Your task to perform on an android device: choose inbox layout in the gmail app Image 0: 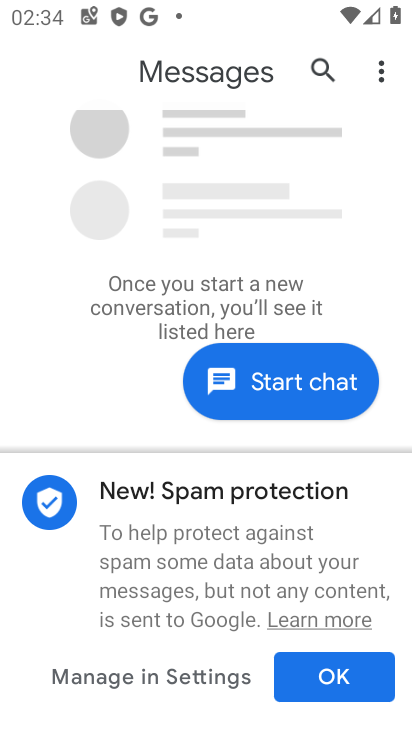
Step 0: press home button
Your task to perform on an android device: choose inbox layout in the gmail app Image 1: 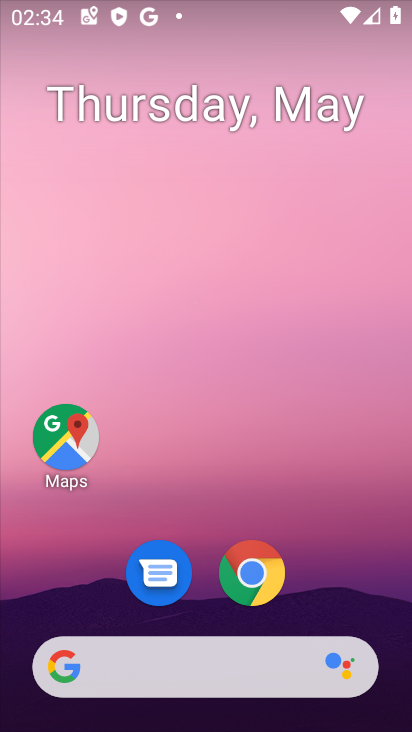
Step 1: drag from (312, 572) to (314, 247)
Your task to perform on an android device: choose inbox layout in the gmail app Image 2: 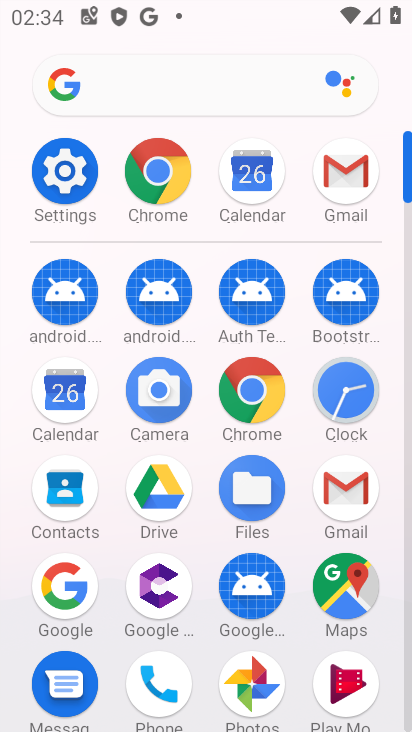
Step 2: click (346, 484)
Your task to perform on an android device: choose inbox layout in the gmail app Image 3: 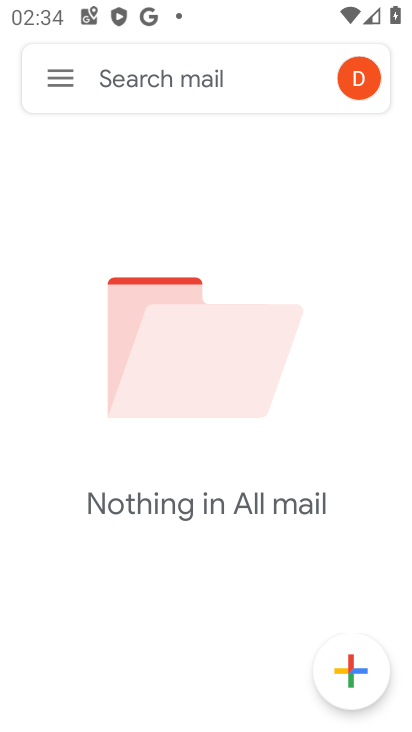
Step 3: click (62, 64)
Your task to perform on an android device: choose inbox layout in the gmail app Image 4: 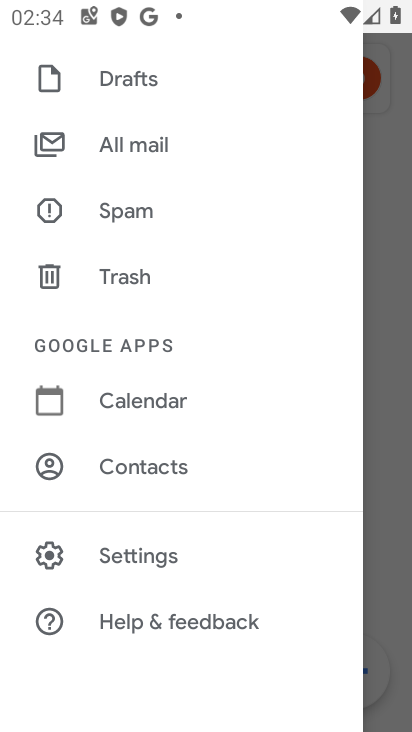
Step 4: click (138, 563)
Your task to perform on an android device: choose inbox layout in the gmail app Image 5: 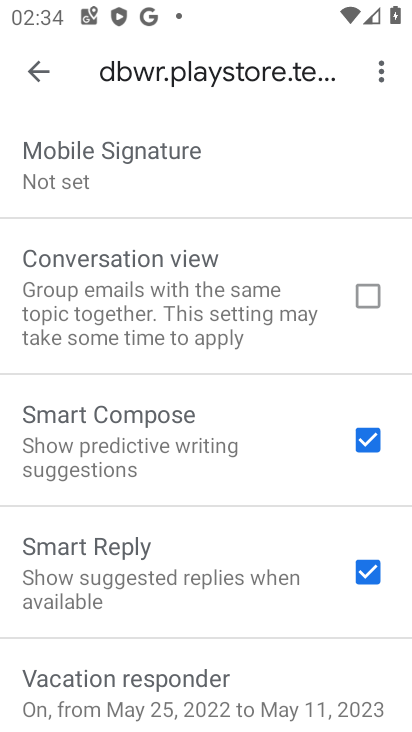
Step 5: drag from (121, 222) to (129, 655)
Your task to perform on an android device: choose inbox layout in the gmail app Image 6: 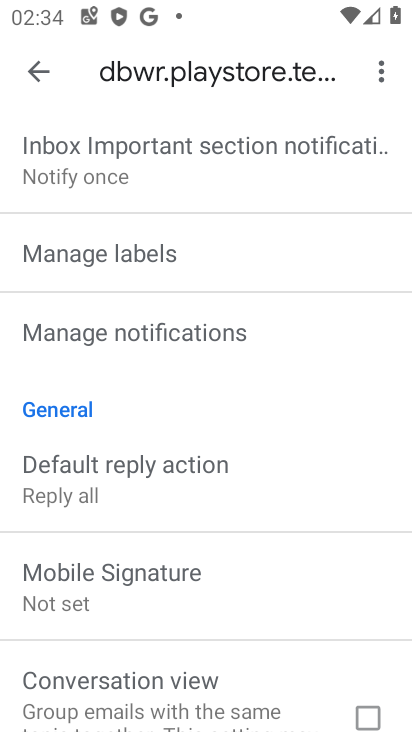
Step 6: drag from (111, 213) to (166, 603)
Your task to perform on an android device: choose inbox layout in the gmail app Image 7: 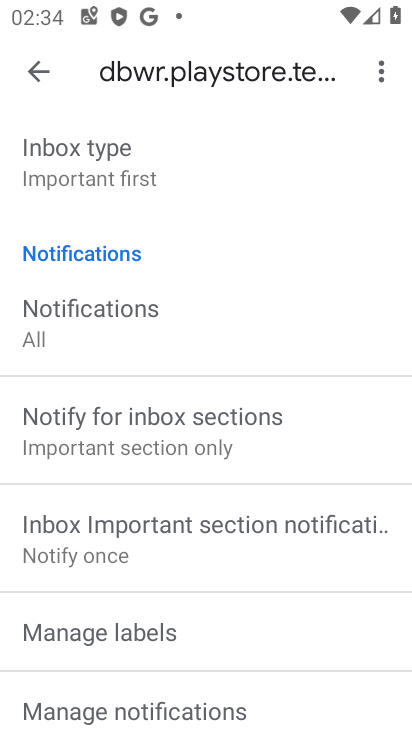
Step 7: click (152, 513)
Your task to perform on an android device: choose inbox layout in the gmail app Image 8: 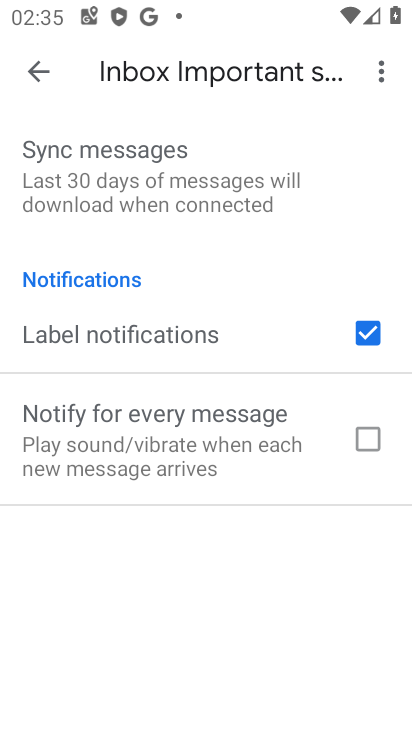
Step 8: click (33, 57)
Your task to perform on an android device: choose inbox layout in the gmail app Image 9: 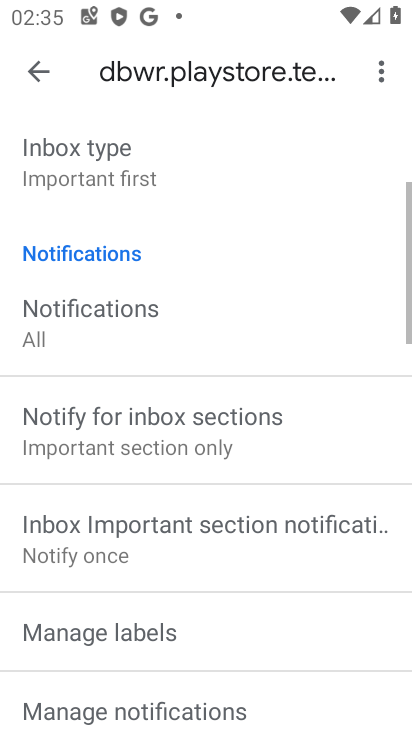
Step 9: drag from (190, 217) to (202, 310)
Your task to perform on an android device: choose inbox layout in the gmail app Image 10: 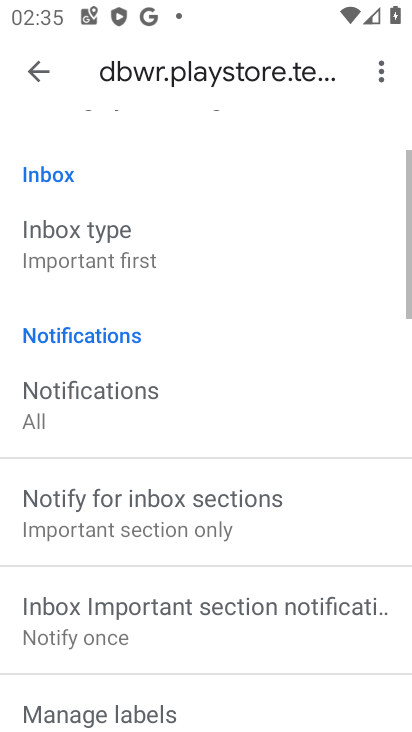
Step 10: click (79, 156)
Your task to perform on an android device: choose inbox layout in the gmail app Image 11: 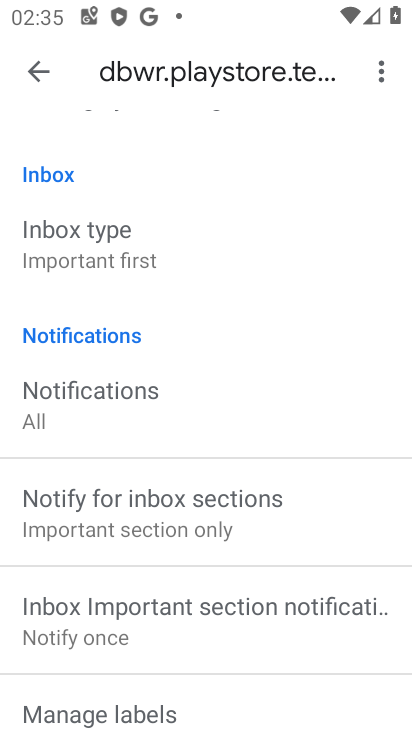
Step 11: click (75, 288)
Your task to perform on an android device: choose inbox layout in the gmail app Image 12: 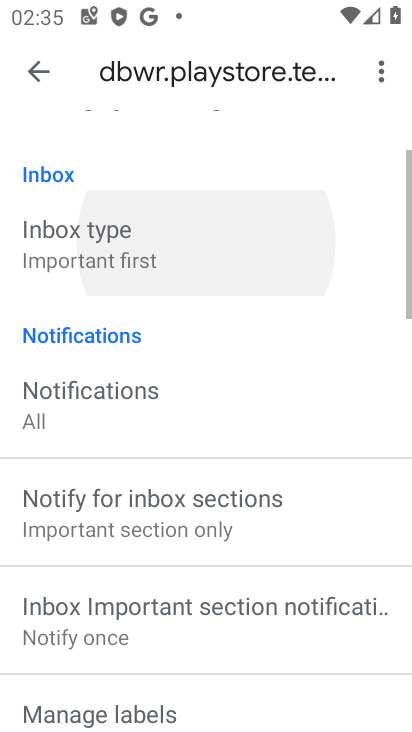
Step 12: click (78, 263)
Your task to perform on an android device: choose inbox layout in the gmail app Image 13: 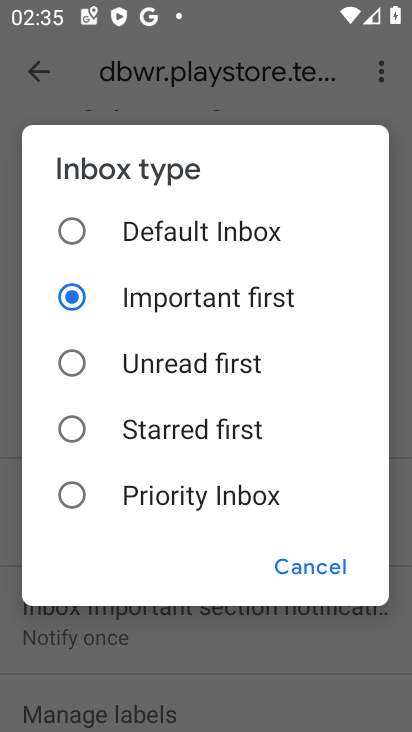
Step 13: click (179, 433)
Your task to perform on an android device: choose inbox layout in the gmail app Image 14: 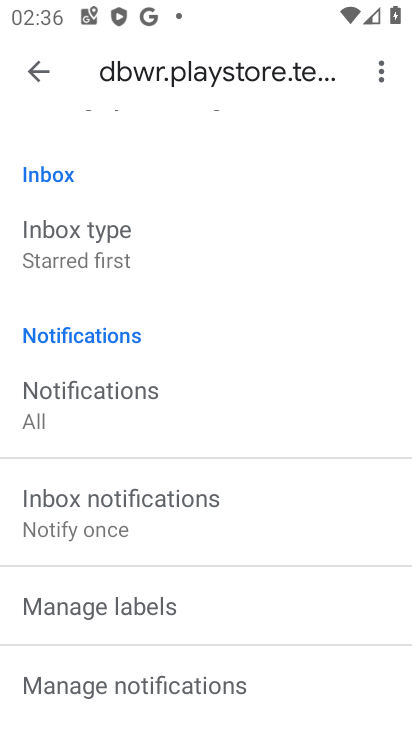
Step 14: task complete